Your task to perform on an android device: What's on my calendar today? Image 0: 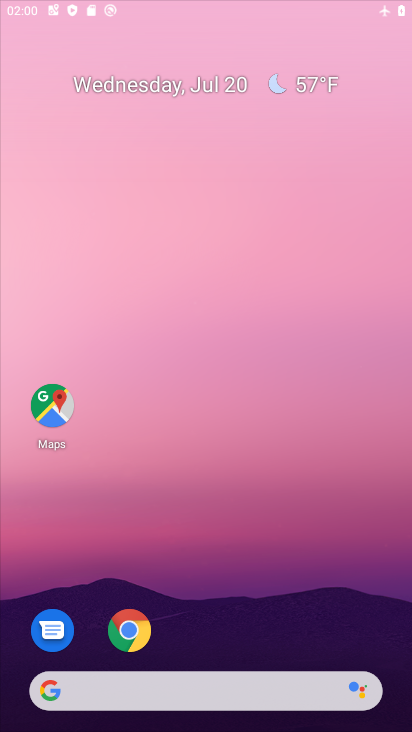
Step 0: drag from (337, 490) to (299, 102)
Your task to perform on an android device: What's on my calendar today? Image 1: 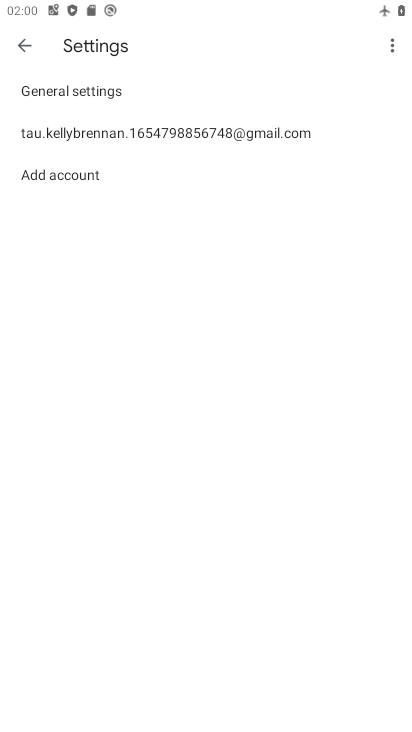
Step 1: press home button
Your task to perform on an android device: What's on my calendar today? Image 2: 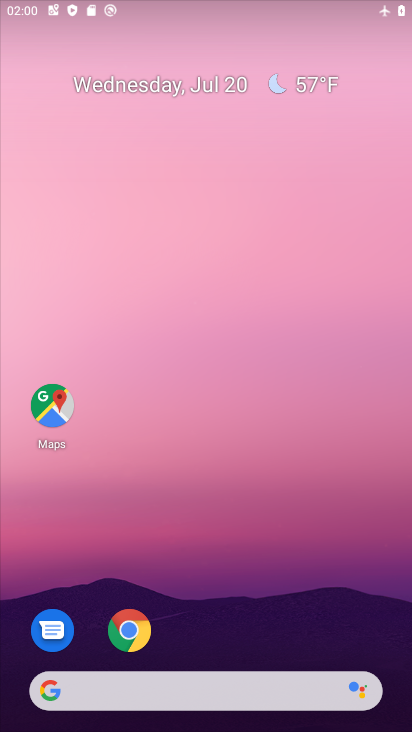
Step 2: drag from (309, 600) to (224, 53)
Your task to perform on an android device: What's on my calendar today? Image 3: 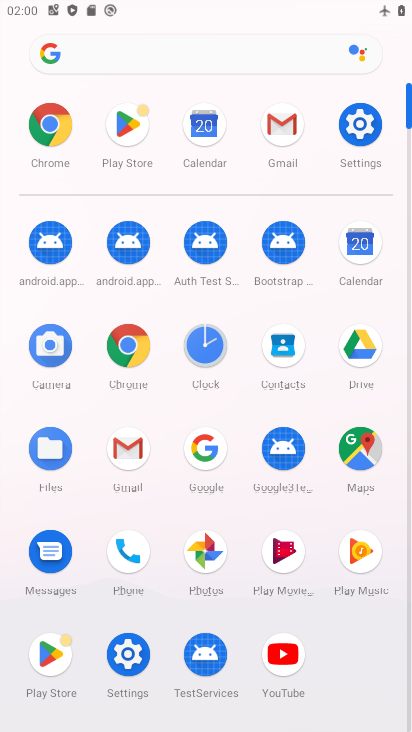
Step 3: click (196, 122)
Your task to perform on an android device: What's on my calendar today? Image 4: 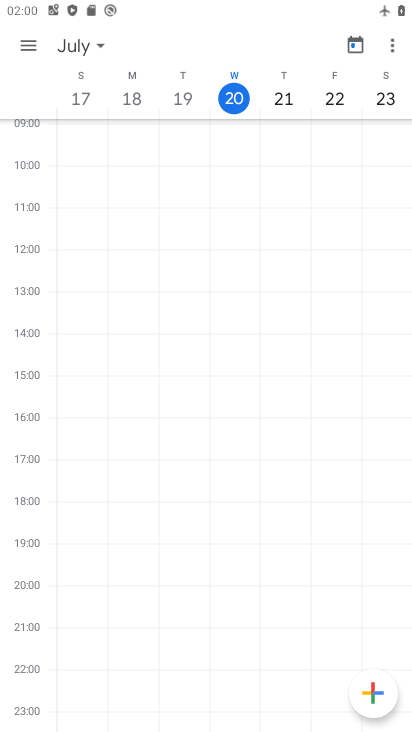
Step 4: click (241, 104)
Your task to perform on an android device: What's on my calendar today? Image 5: 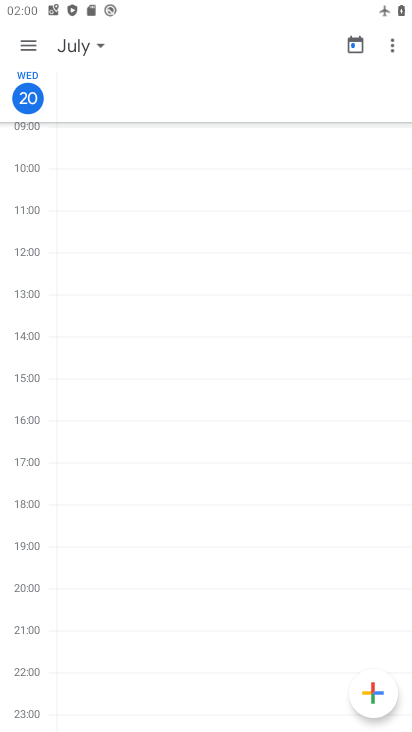
Step 5: task complete